Your task to perform on an android device: Do I have any events today? Image 0: 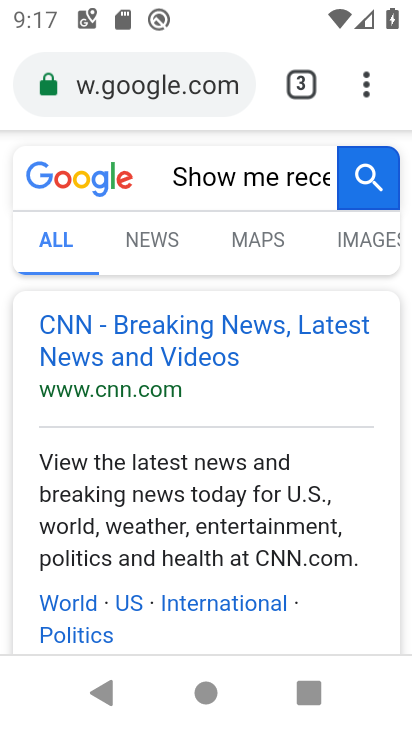
Step 0: press home button
Your task to perform on an android device: Do I have any events today? Image 1: 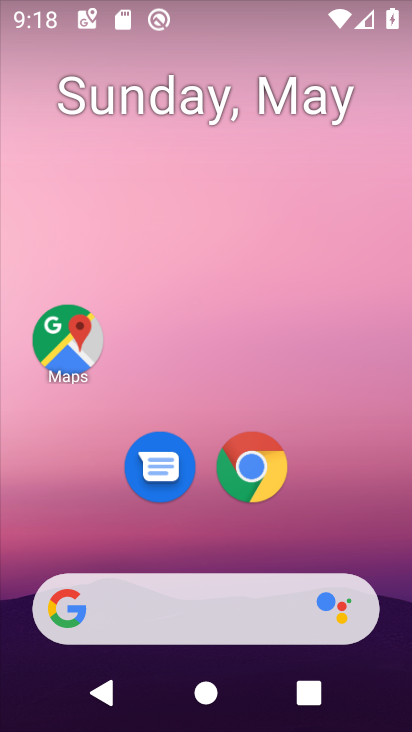
Step 1: drag from (363, 501) to (361, 163)
Your task to perform on an android device: Do I have any events today? Image 2: 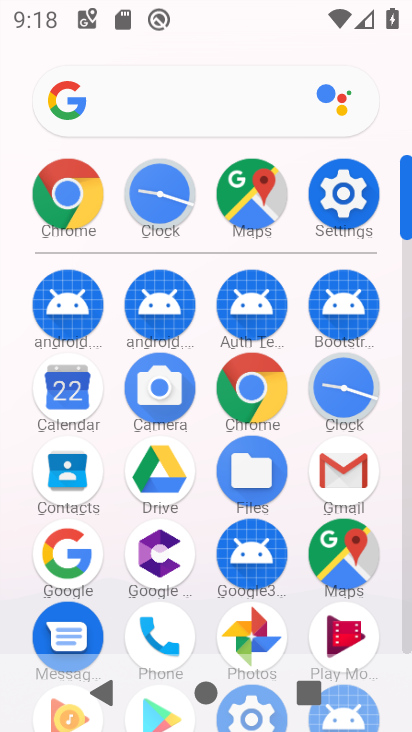
Step 2: click (73, 409)
Your task to perform on an android device: Do I have any events today? Image 3: 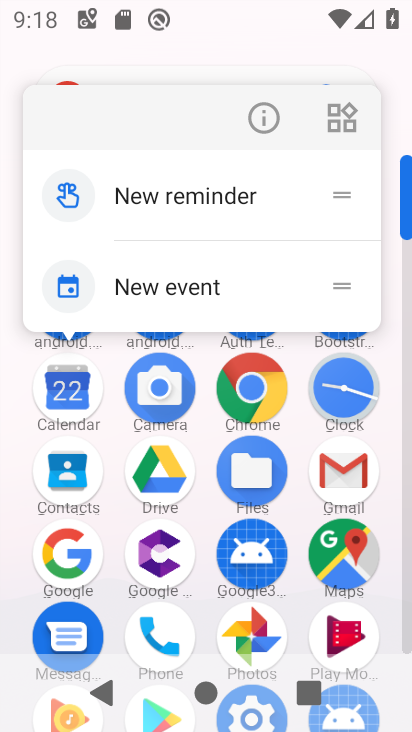
Step 3: click (66, 397)
Your task to perform on an android device: Do I have any events today? Image 4: 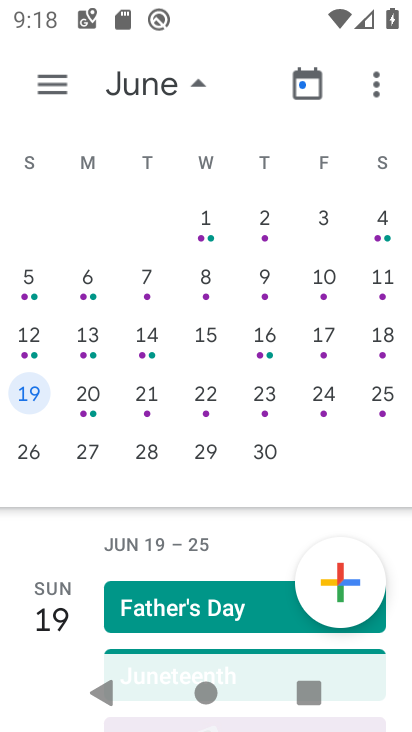
Step 4: drag from (52, 666) to (77, 541)
Your task to perform on an android device: Do I have any events today? Image 5: 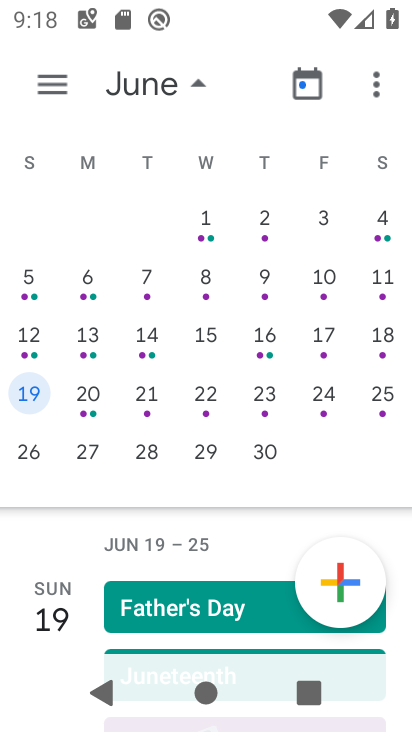
Step 5: drag from (60, 232) to (384, 200)
Your task to perform on an android device: Do I have any events today? Image 6: 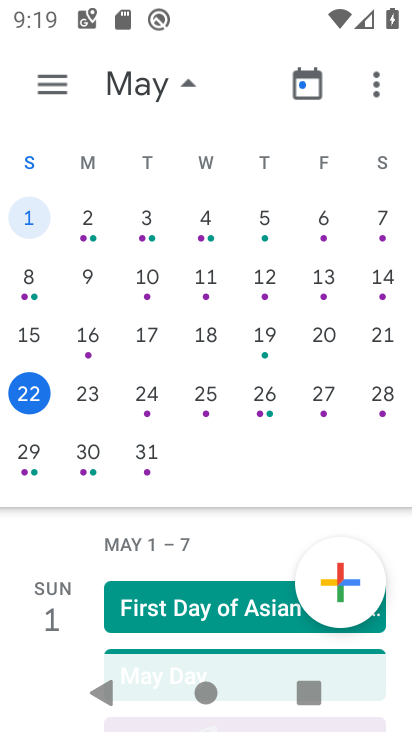
Step 6: click (17, 401)
Your task to perform on an android device: Do I have any events today? Image 7: 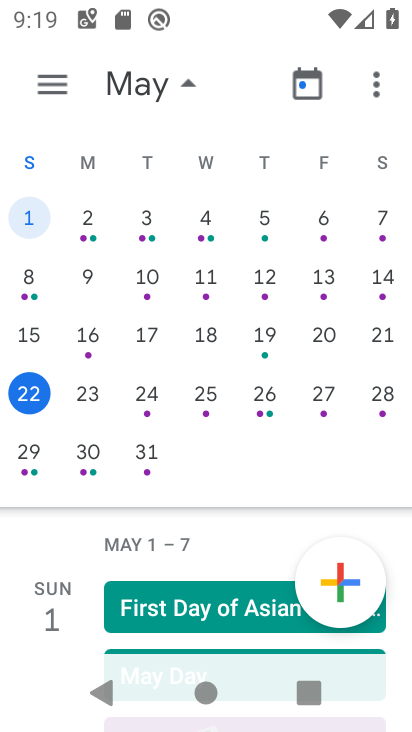
Step 7: click (94, 401)
Your task to perform on an android device: Do I have any events today? Image 8: 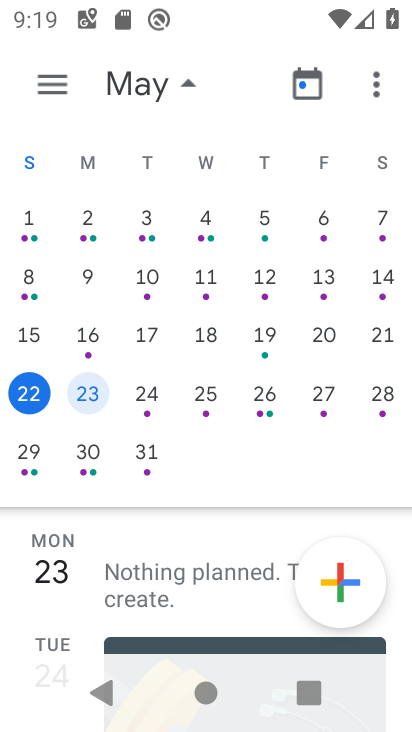
Step 8: task complete